Your task to perform on an android device: Clear the shopping cart on target. Search for lg ultragear on target, select the first entry, and add it to the cart. Image 0: 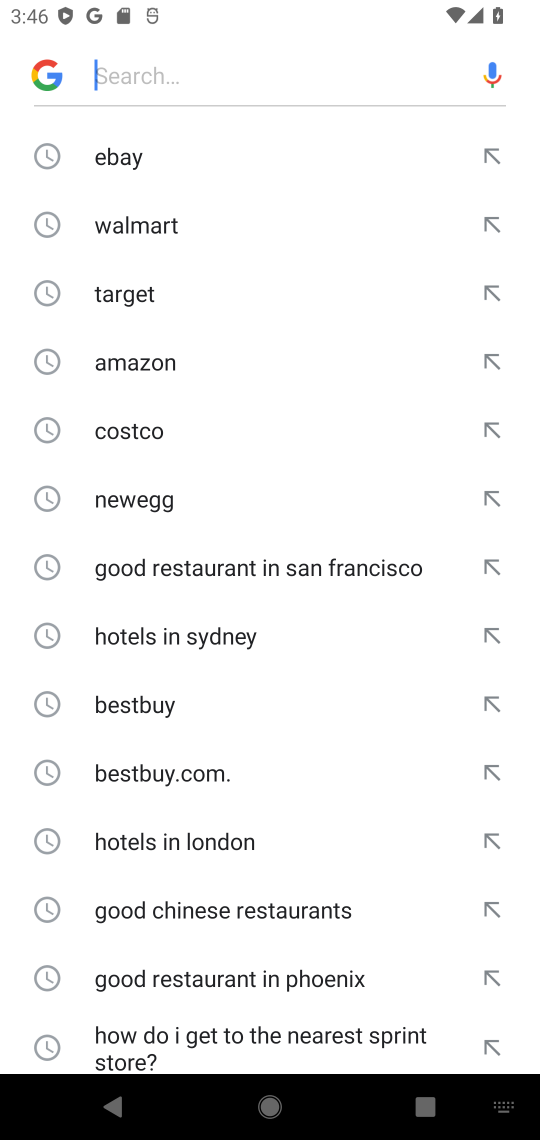
Step 0: press home button
Your task to perform on an android device: Clear the shopping cart on target. Search for lg ultragear on target, select the first entry, and add it to the cart. Image 1: 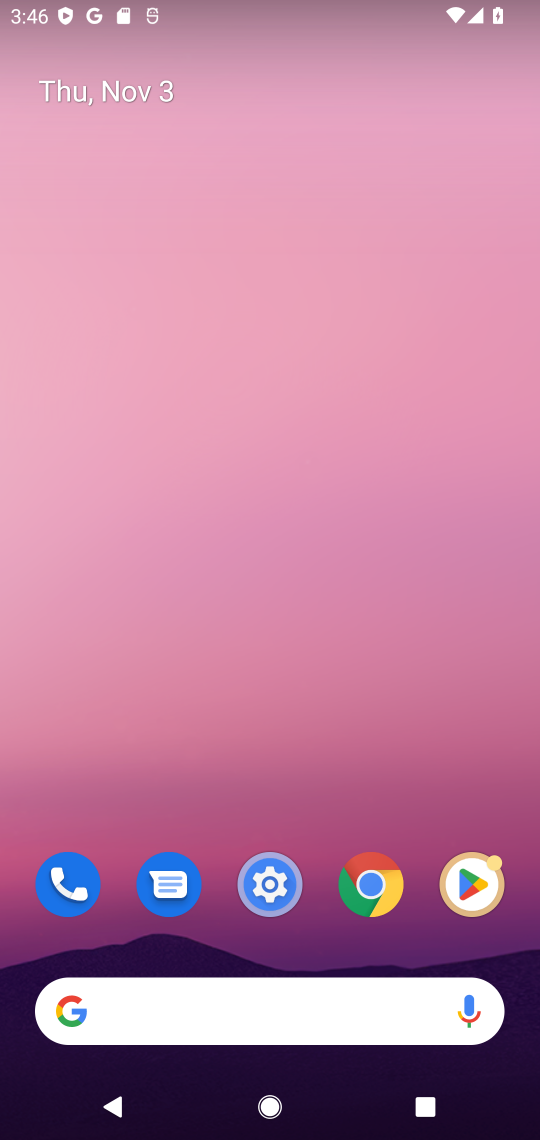
Step 1: click (110, 1007)
Your task to perform on an android device: Clear the shopping cart on target. Search for lg ultragear on target, select the first entry, and add it to the cart. Image 2: 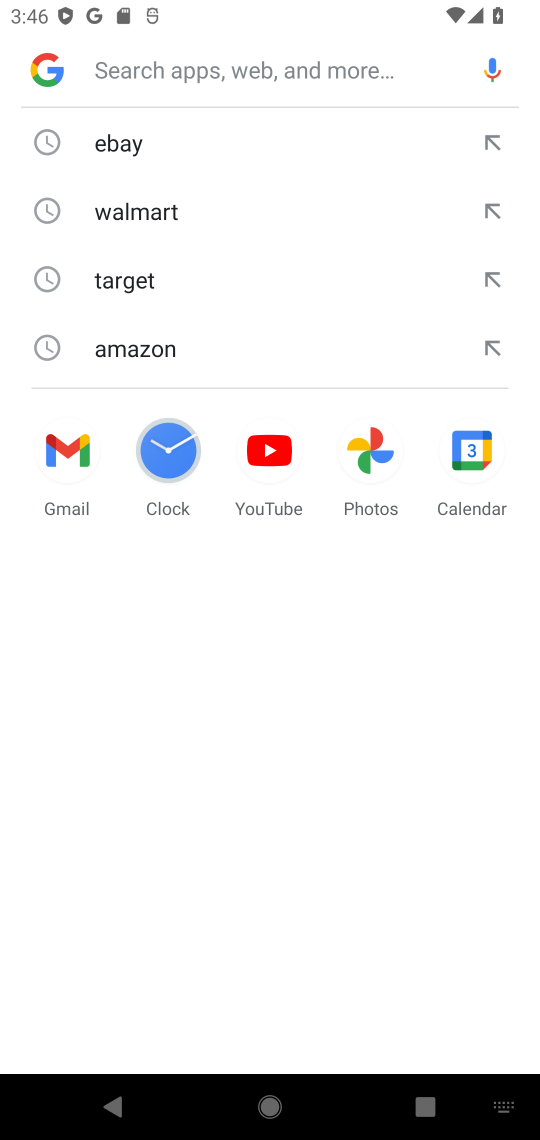
Step 2: type "target."
Your task to perform on an android device: Clear the shopping cart on target. Search for lg ultragear on target, select the first entry, and add it to the cart. Image 3: 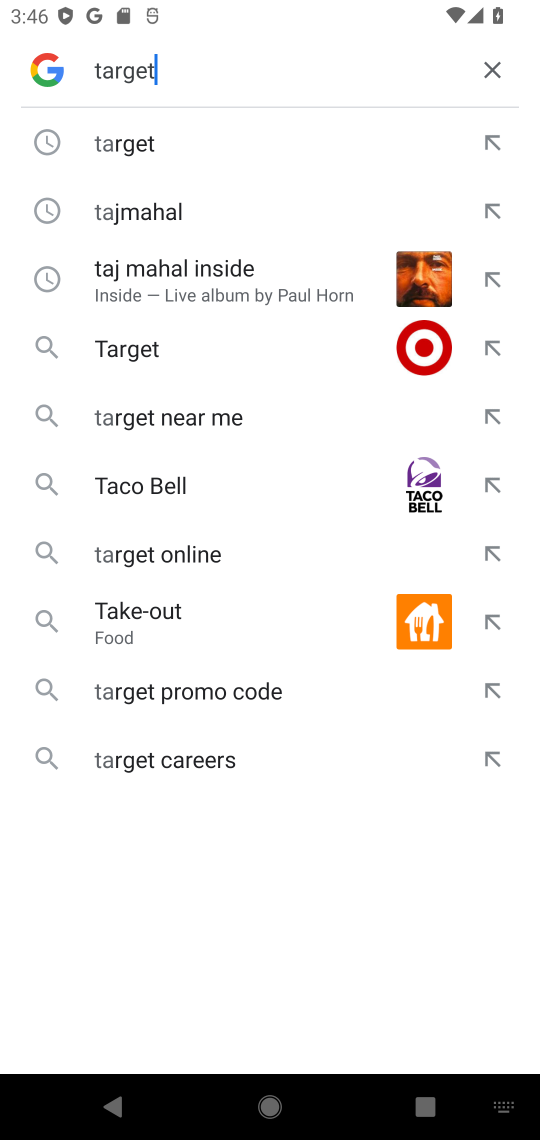
Step 3: press enter
Your task to perform on an android device: Clear the shopping cart on target. Search for lg ultragear on target, select the first entry, and add it to the cart. Image 4: 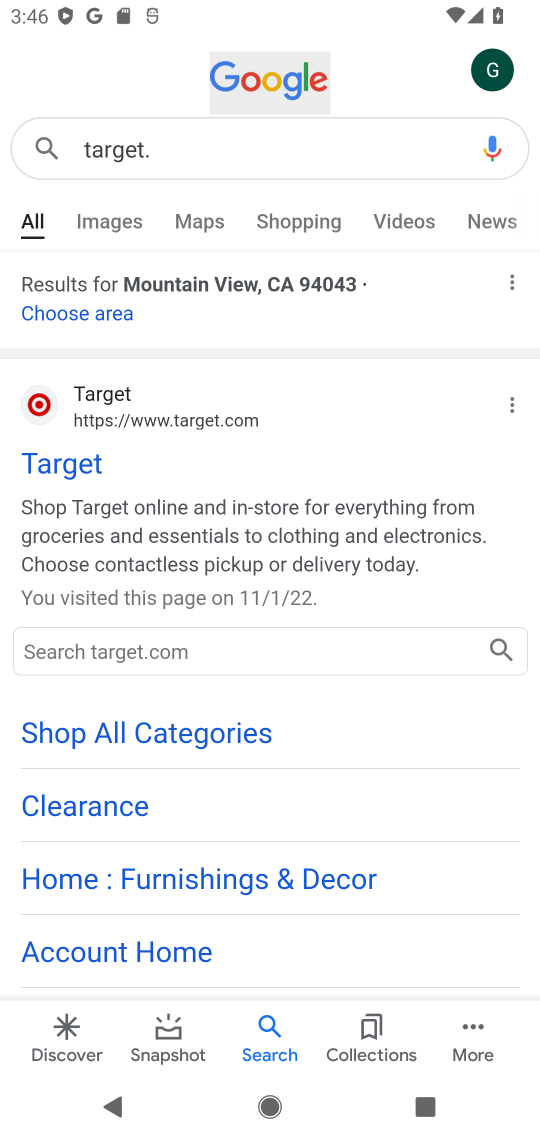
Step 4: click (51, 460)
Your task to perform on an android device: Clear the shopping cart on target. Search for lg ultragear on target, select the first entry, and add it to the cart. Image 5: 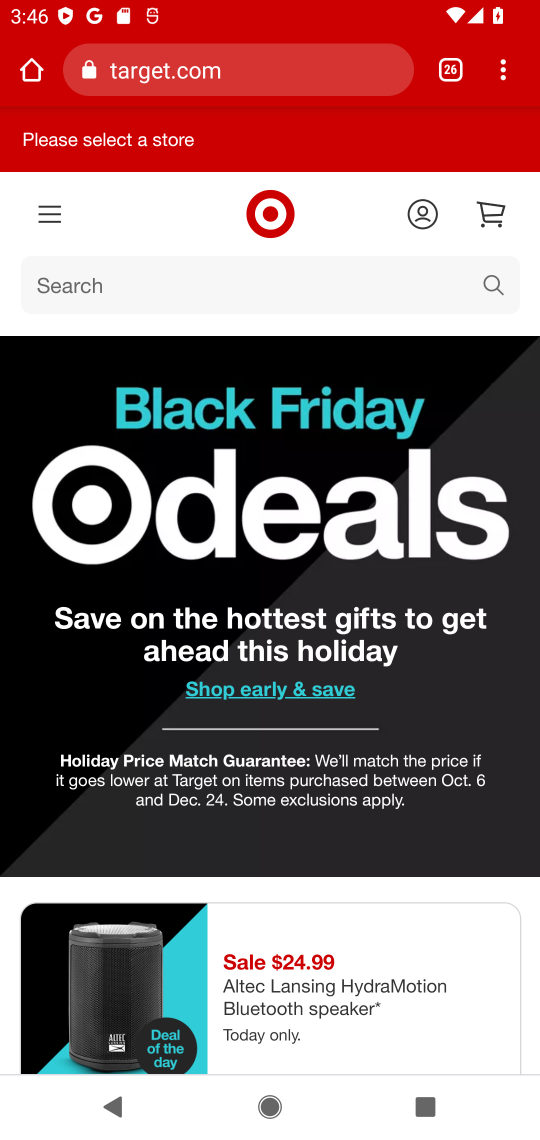
Step 5: click (488, 205)
Your task to perform on an android device: Clear the shopping cart on target. Search for lg ultragear on target, select the first entry, and add it to the cart. Image 6: 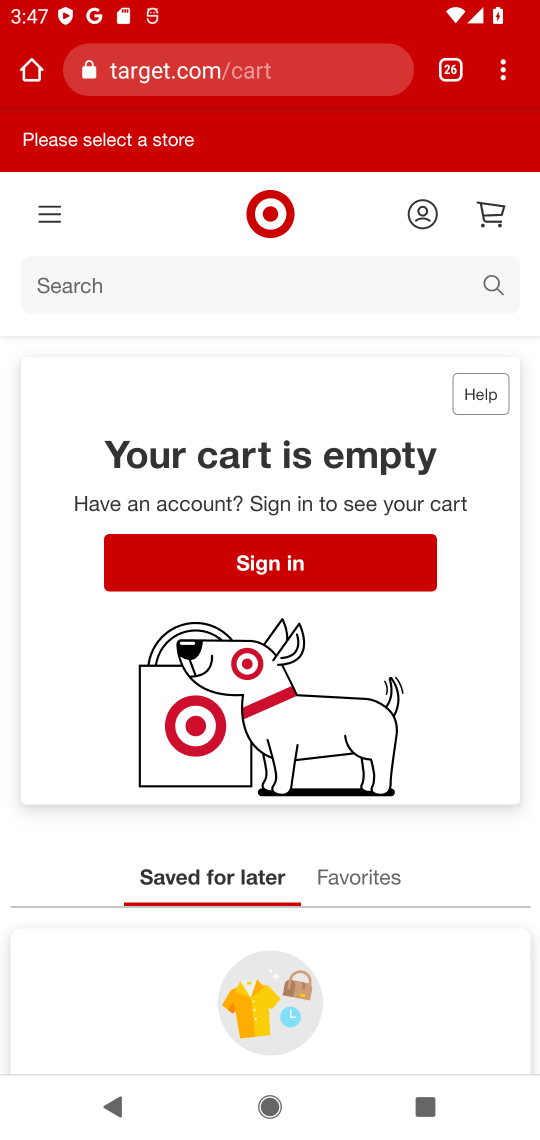
Step 6: click (85, 284)
Your task to perform on an android device: Clear the shopping cart on target. Search for lg ultragear on target, select the first entry, and add it to the cart. Image 7: 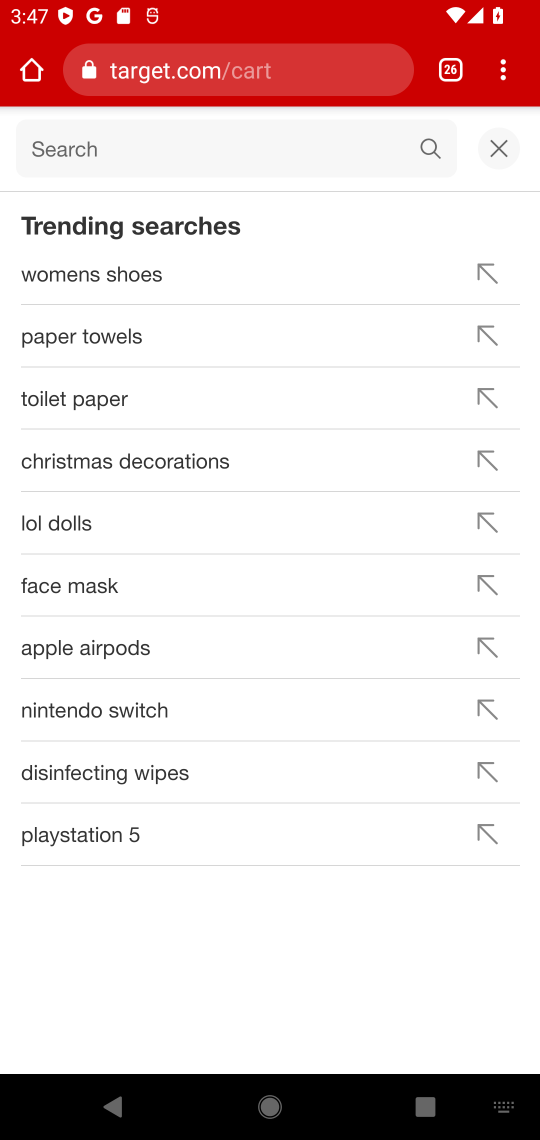
Step 7: type "lg ultragear "
Your task to perform on an android device: Clear the shopping cart on target. Search for lg ultragear on target, select the first entry, and add it to the cart. Image 8: 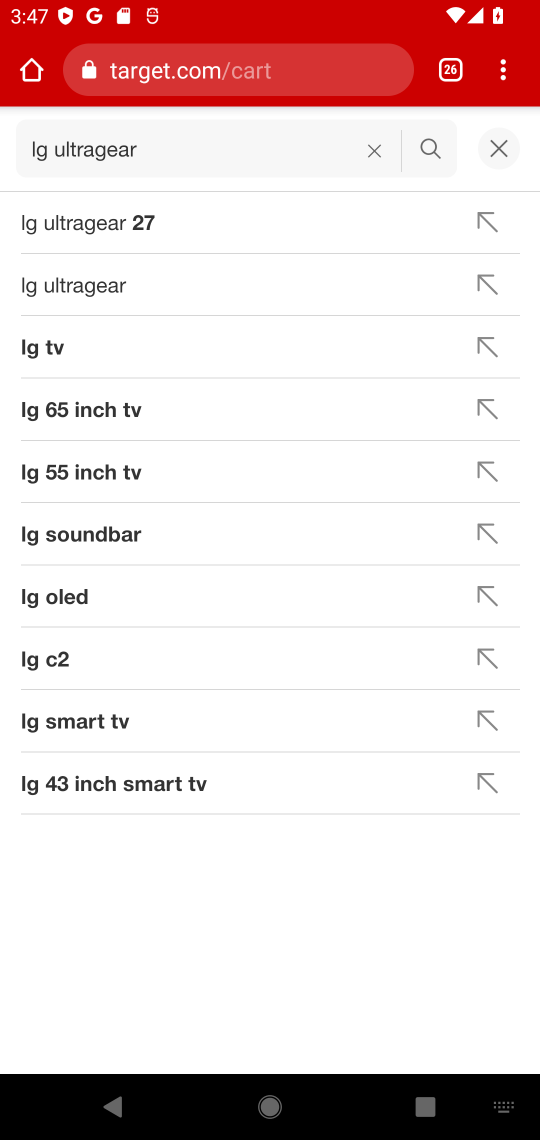
Step 8: click (427, 145)
Your task to perform on an android device: Clear the shopping cart on target. Search for lg ultragear on target, select the first entry, and add it to the cart. Image 9: 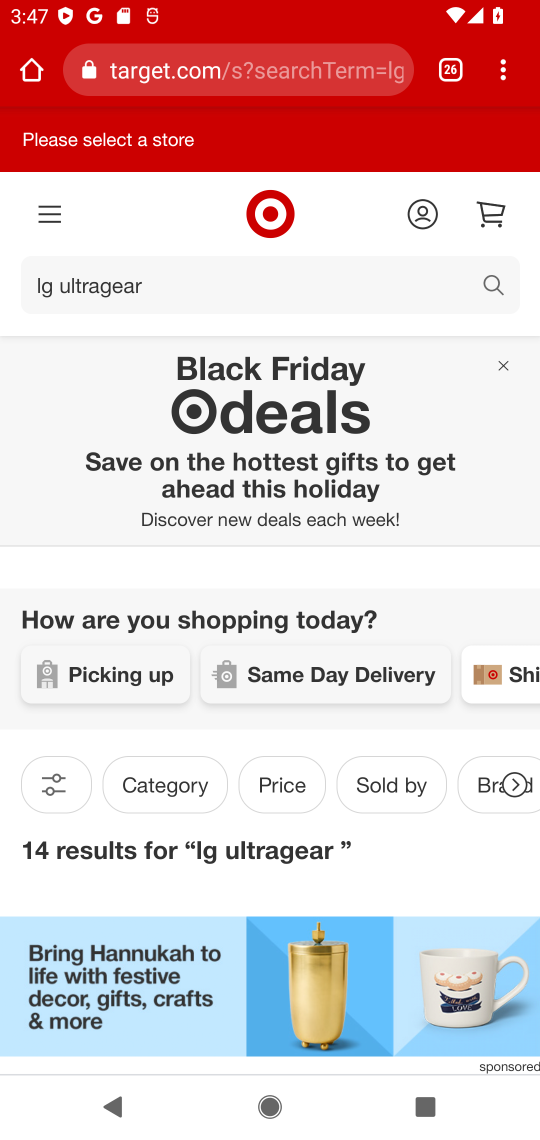
Step 9: drag from (356, 929) to (380, 434)
Your task to perform on an android device: Clear the shopping cart on target. Search for lg ultragear on target, select the first entry, and add it to the cart. Image 10: 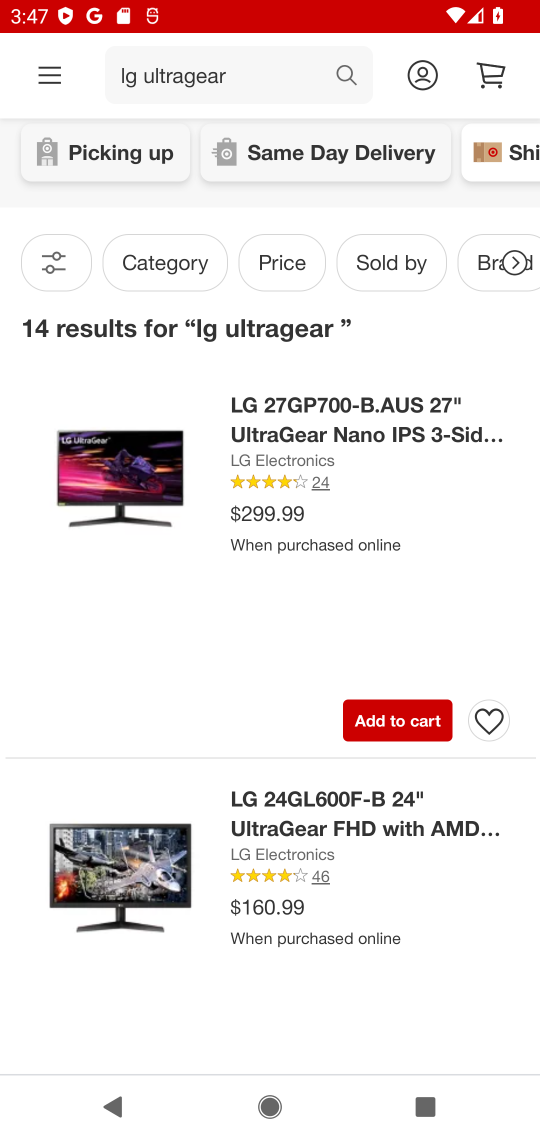
Step 10: click (401, 714)
Your task to perform on an android device: Clear the shopping cart on target. Search for lg ultragear on target, select the first entry, and add it to the cart. Image 11: 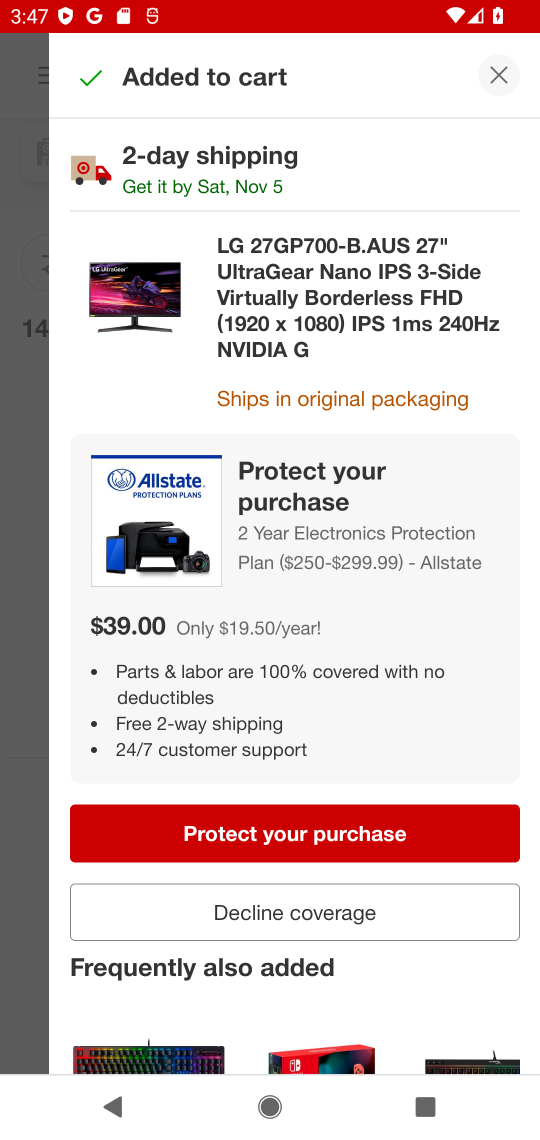
Step 11: task complete